Your task to perform on an android device: change keyboard looks Image 0: 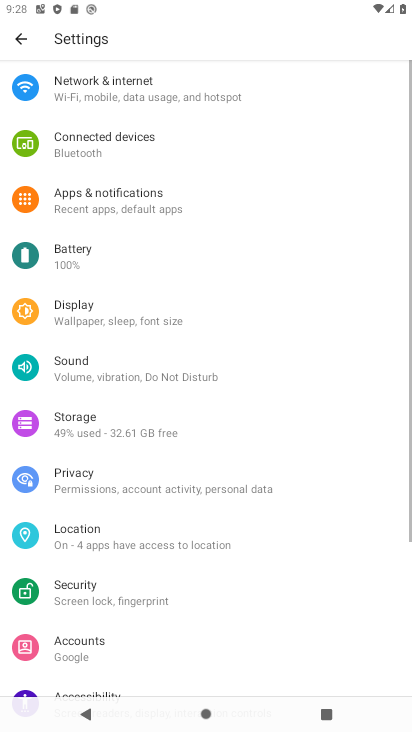
Step 0: press home button
Your task to perform on an android device: change keyboard looks Image 1: 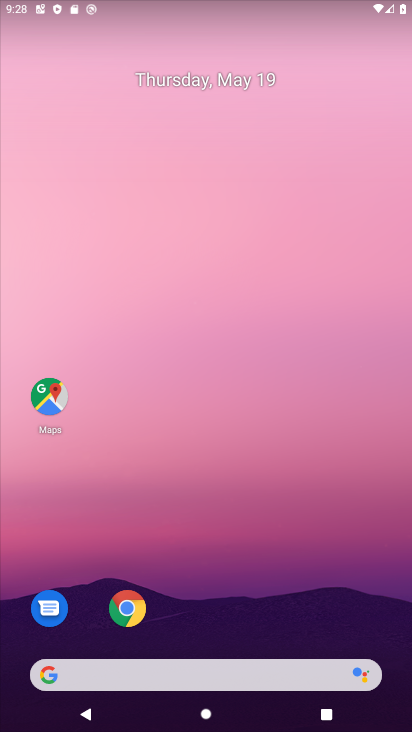
Step 1: drag from (161, 629) to (190, 255)
Your task to perform on an android device: change keyboard looks Image 2: 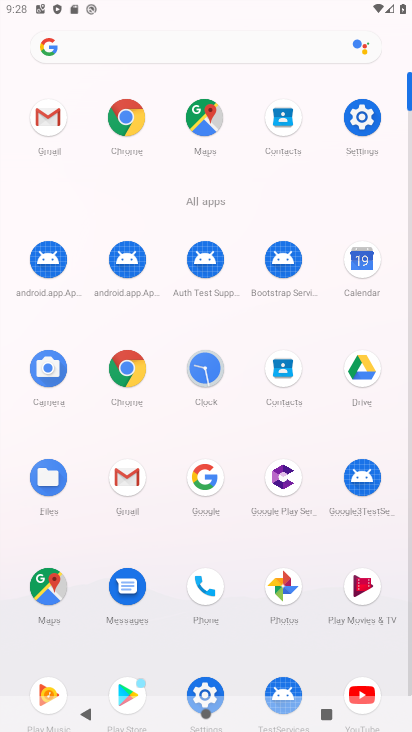
Step 2: click (356, 113)
Your task to perform on an android device: change keyboard looks Image 3: 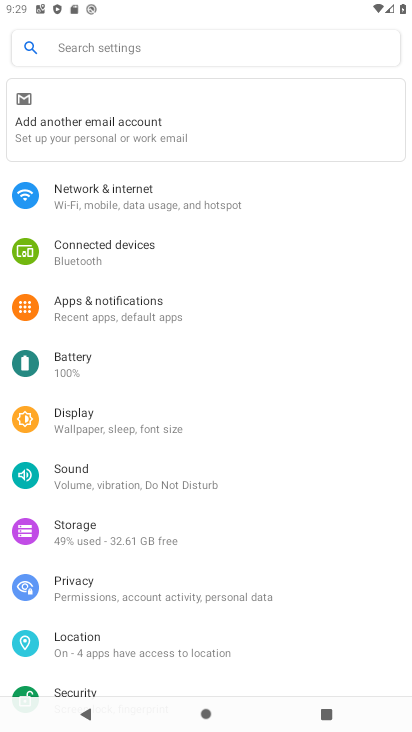
Step 3: drag from (147, 614) to (174, 445)
Your task to perform on an android device: change keyboard looks Image 4: 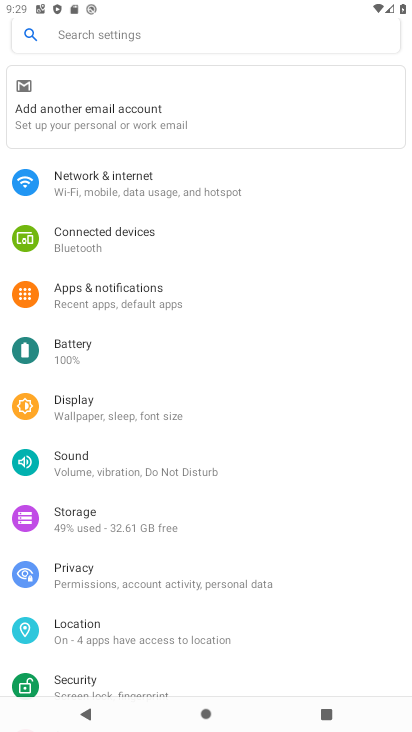
Step 4: drag from (160, 609) to (175, 310)
Your task to perform on an android device: change keyboard looks Image 5: 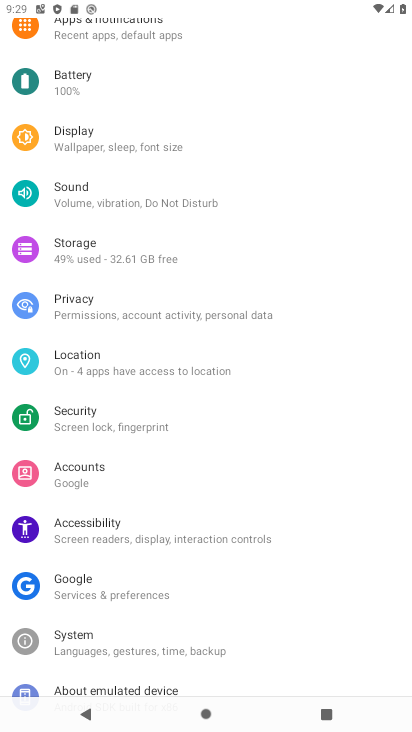
Step 5: click (162, 650)
Your task to perform on an android device: change keyboard looks Image 6: 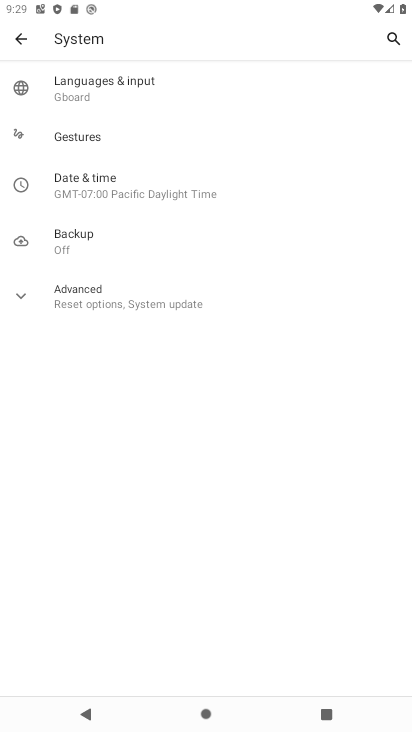
Step 6: click (108, 81)
Your task to perform on an android device: change keyboard looks Image 7: 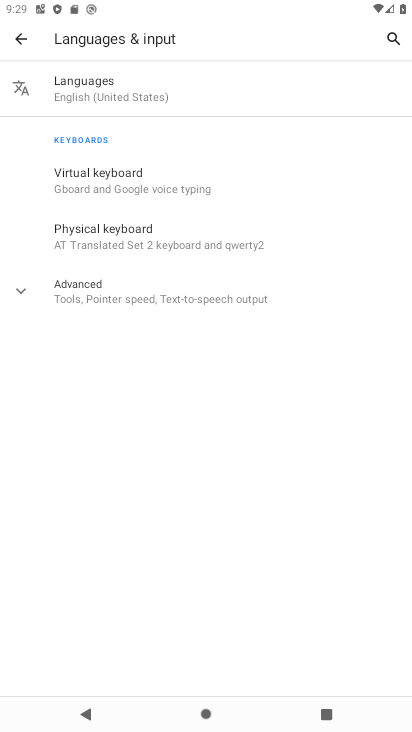
Step 7: click (106, 186)
Your task to perform on an android device: change keyboard looks Image 8: 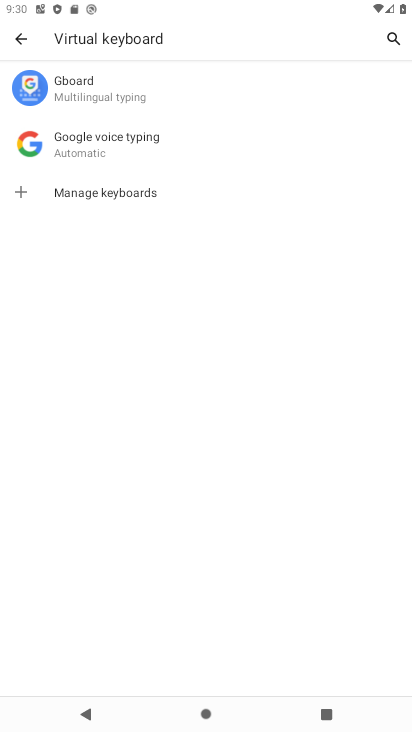
Step 8: task complete